Your task to perform on an android device: Do I have any events this weekend? Image 0: 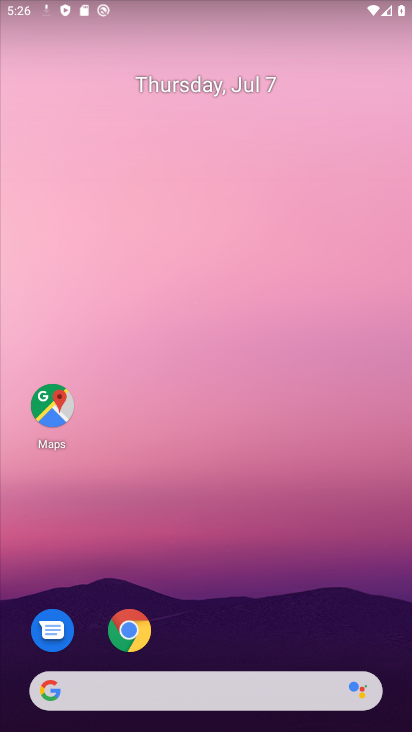
Step 0: press home button
Your task to perform on an android device: Do I have any events this weekend? Image 1: 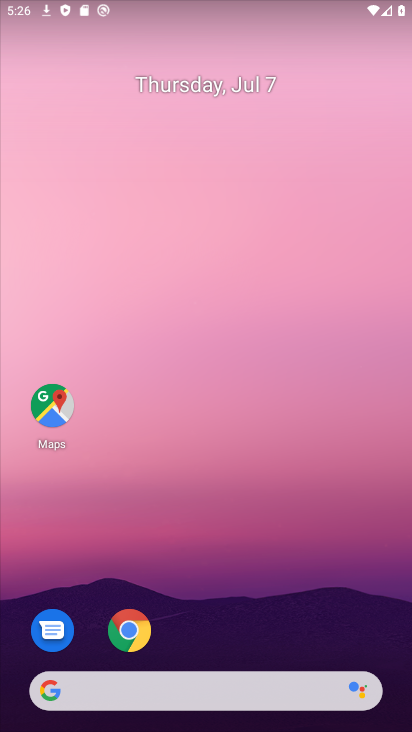
Step 1: drag from (240, 578) to (223, 64)
Your task to perform on an android device: Do I have any events this weekend? Image 2: 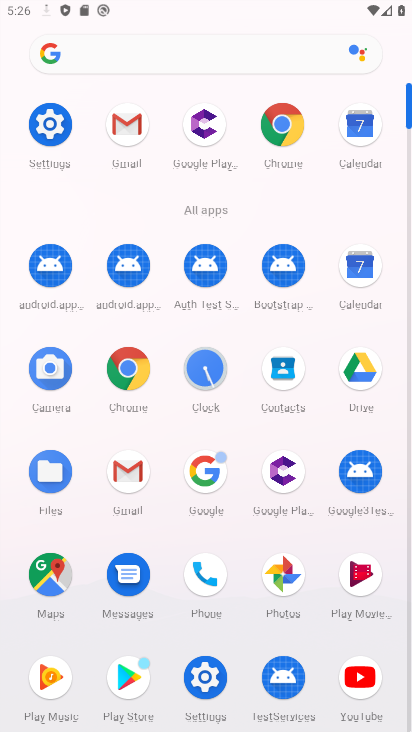
Step 2: click (359, 148)
Your task to perform on an android device: Do I have any events this weekend? Image 3: 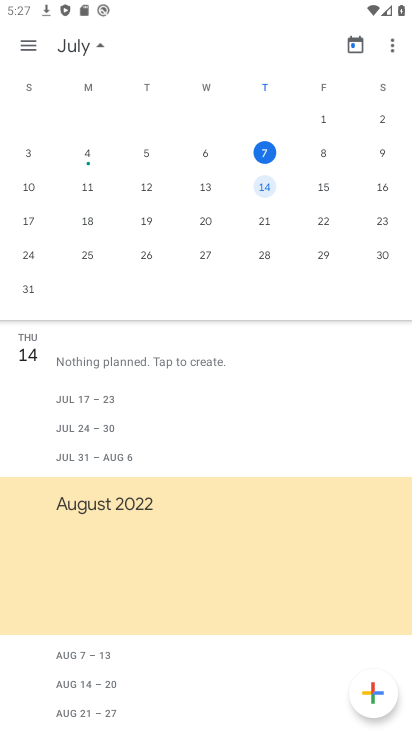
Step 3: task complete